Your task to perform on an android device: Open the calendar and show me this week's events? Image 0: 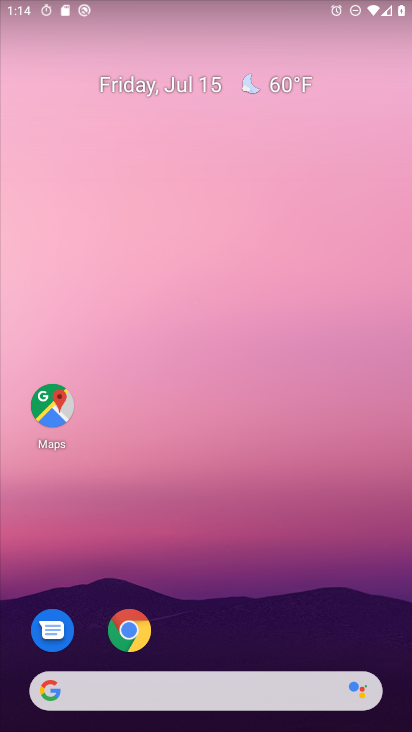
Step 0: drag from (186, 512) to (268, 4)
Your task to perform on an android device: Open the calendar and show me this week's events? Image 1: 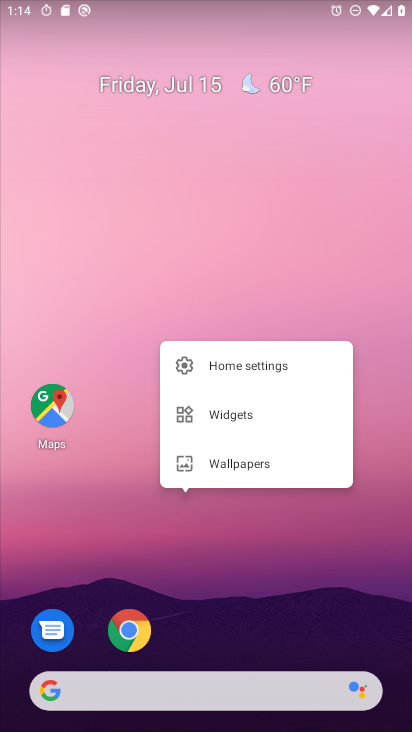
Step 1: click (221, 644)
Your task to perform on an android device: Open the calendar and show me this week's events? Image 2: 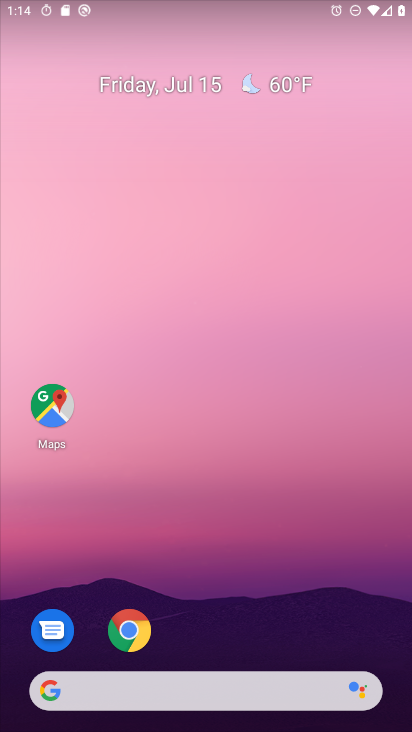
Step 2: drag from (221, 638) to (278, 25)
Your task to perform on an android device: Open the calendar and show me this week's events? Image 3: 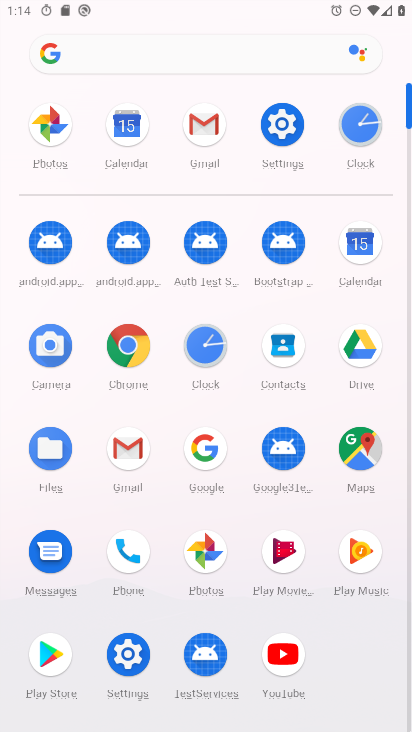
Step 3: click (358, 279)
Your task to perform on an android device: Open the calendar and show me this week's events? Image 4: 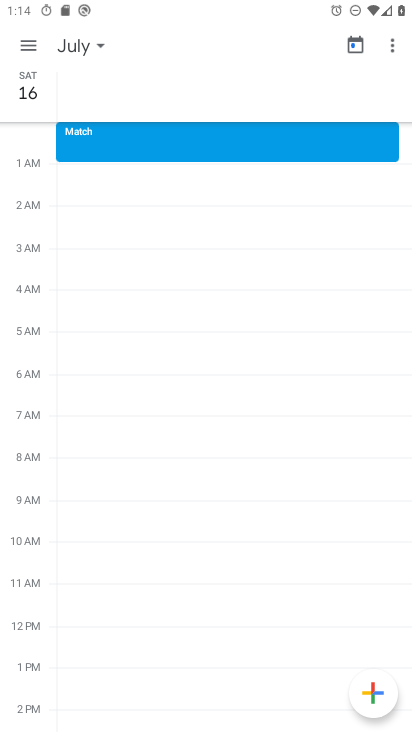
Step 4: click (27, 45)
Your task to perform on an android device: Open the calendar and show me this week's events? Image 5: 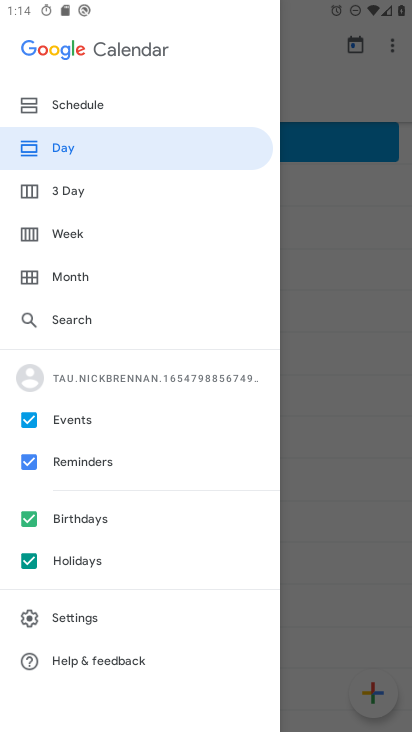
Step 5: click (74, 237)
Your task to perform on an android device: Open the calendar and show me this week's events? Image 6: 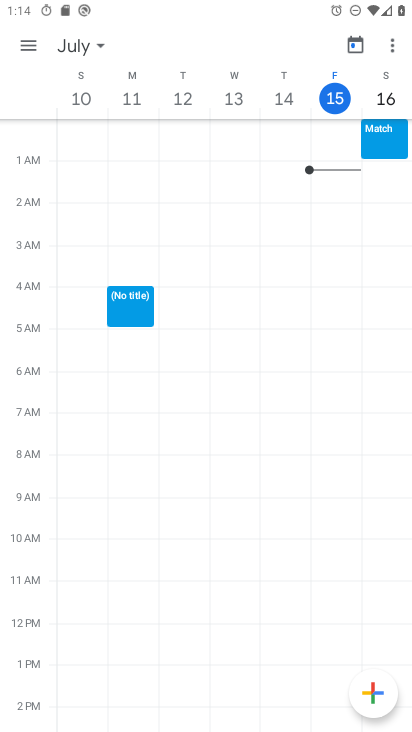
Step 6: task complete